Your task to perform on an android device: Show me recent news Image 0: 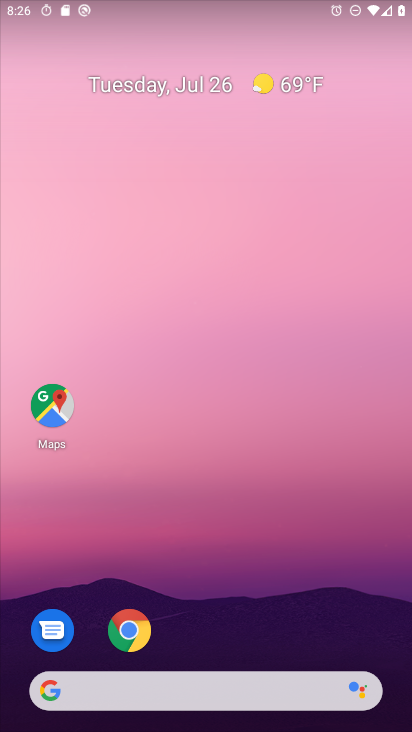
Step 0: drag from (261, 623) to (275, 126)
Your task to perform on an android device: Show me recent news Image 1: 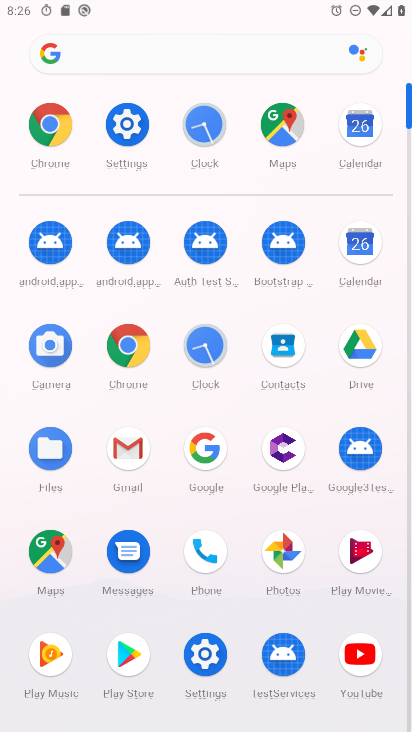
Step 1: click (217, 461)
Your task to perform on an android device: Show me recent news Image 2: 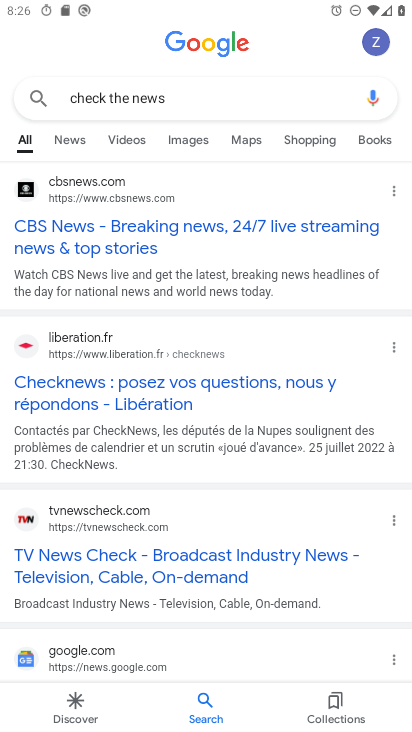
Step 2: click (79, 701)
Your task to perform on an android device: Show me recent news Image 3: 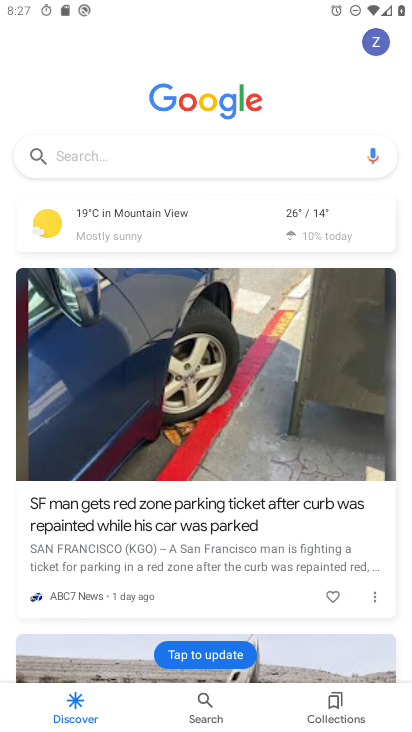
Step 3: task complete